Your task to perform on an android device: see sites visited before in the chrome app Image 0: 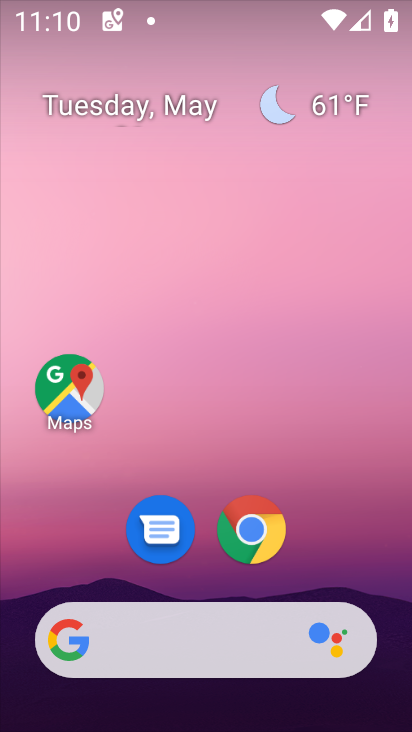
Step 0: click (270, 537)
Your task to perform on an android device: see sites visited before in the chrome app Image 1: 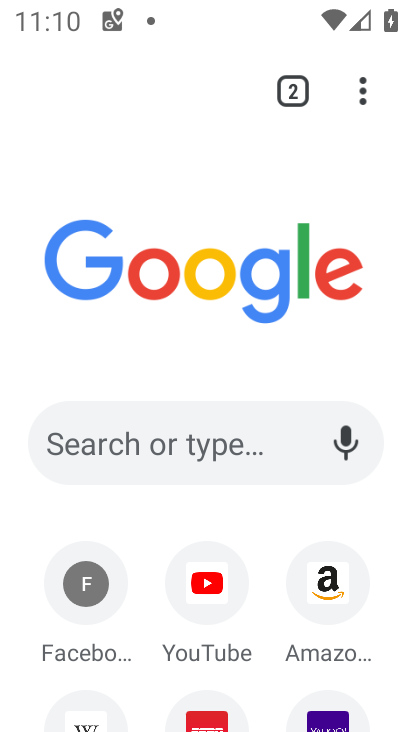
Step 1: click (367, 92)
Your task to perform on an android device: see sites visited before in the chrome app Image 2: 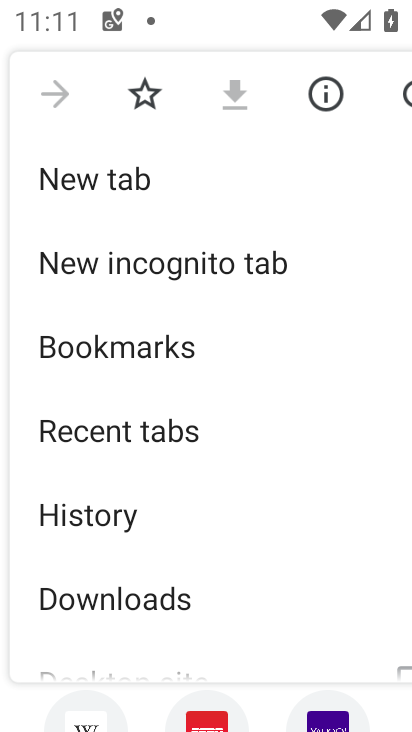
Step 2: drag from (144, 612) to (126, 174)
Your task to perform on an android device: see sites visited before in the chrome app Image 3: 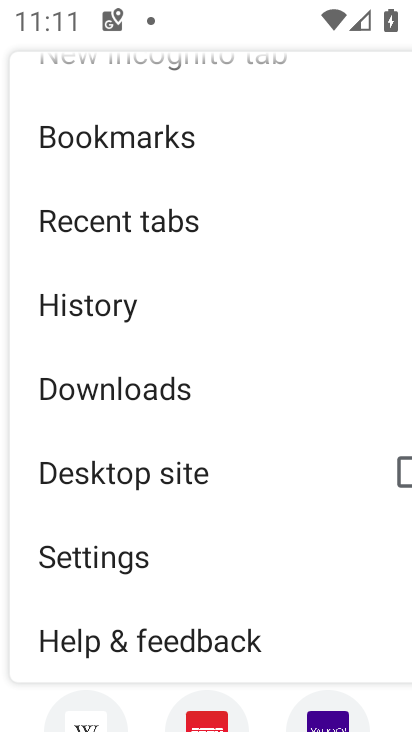
Step 3: click (116, 219)
Your task to perform on an android device: see sites visited before in the chrome app Image 4: 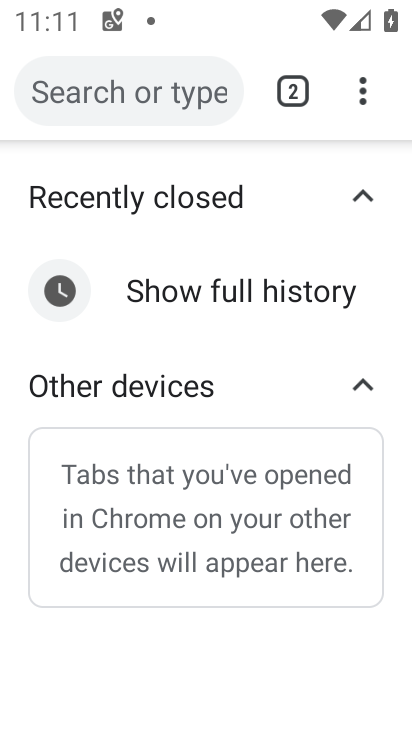
Step 4: click (363, 195)
Your task to perform on an android device: see sites visited before in the chrome app Image 5: 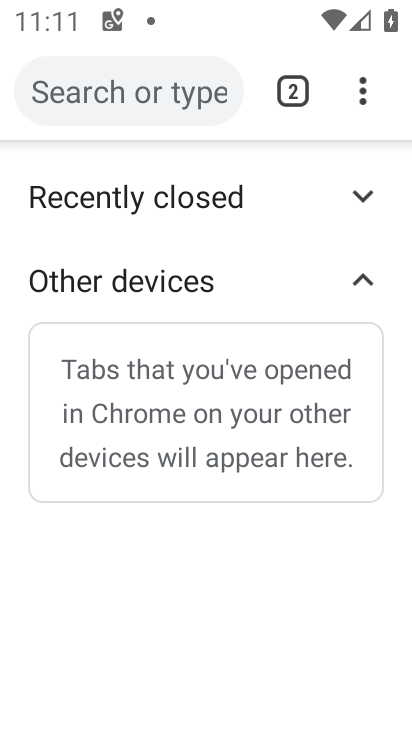
Step 5: click (363, 195)
Your task to perform on an android device: see sites visited before in the chrome app Image 6: 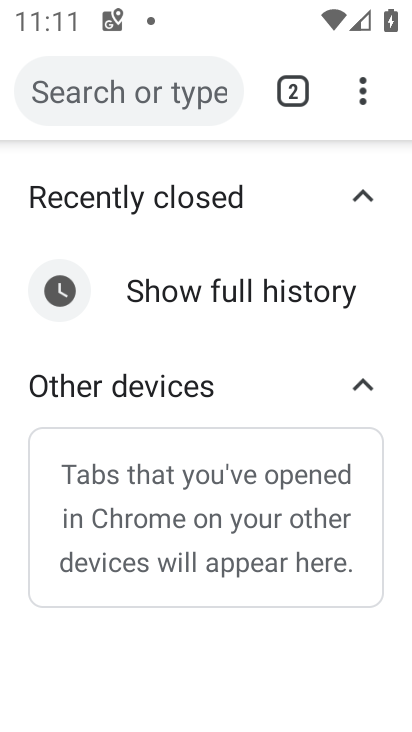
Step 6: click (244, 280)
Your task to perform on an android device: see sites visited before in the chrome app Image 7: 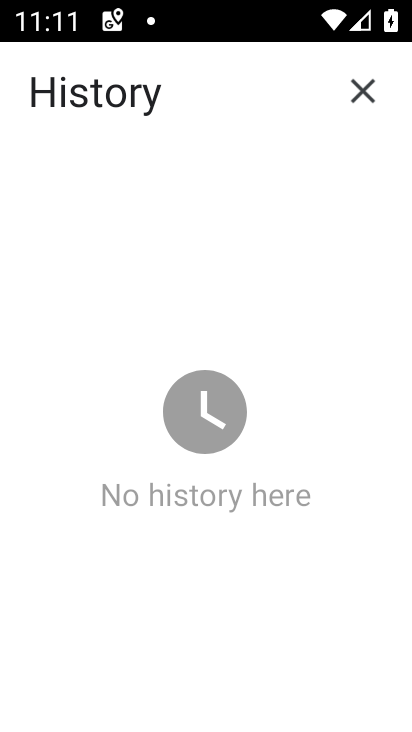
Step 7: task complete